Your task to perform on an android device: see tabs open on other devices in the chrome app Image 0: 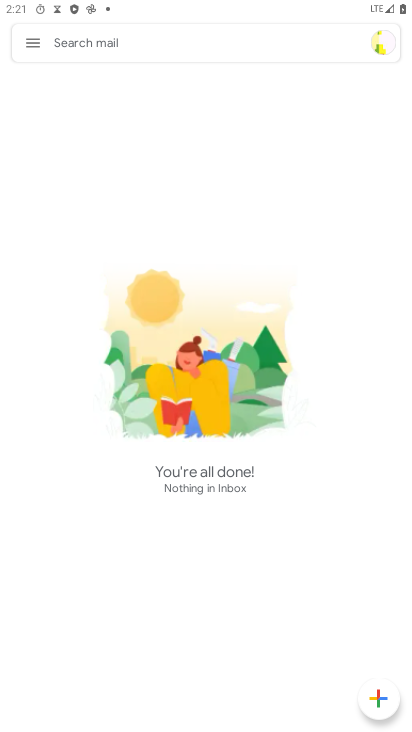
Step 0: press home button
Your task to perform on an android device: see tabs open on other devices in the chrome app Image 1: 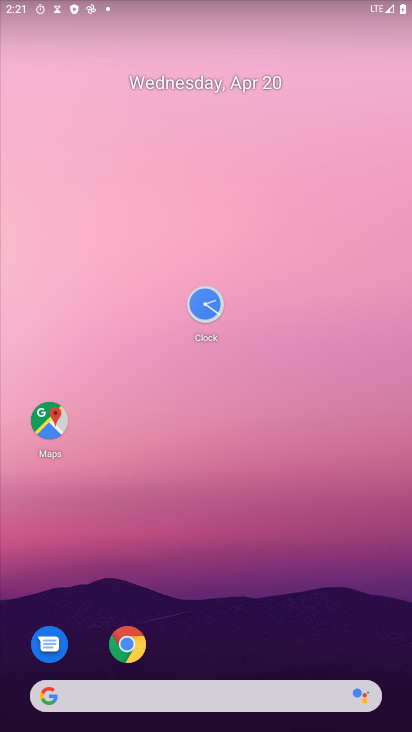
Step 1: drag from (260, 688) to (213, 65)
Your task to perform on an android device: see tabs open on other devices in the chrome app Image 2: 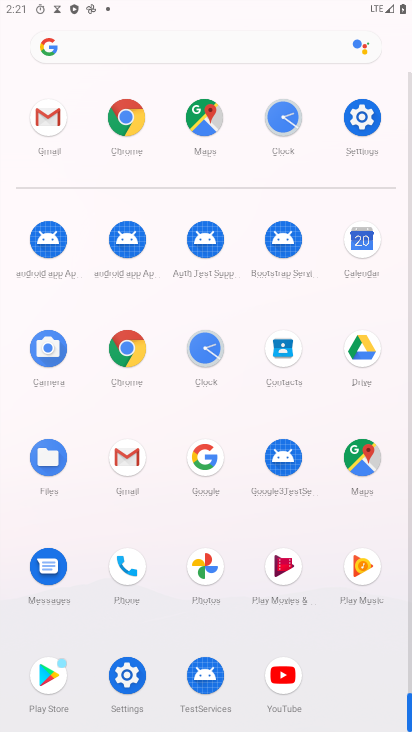
Step 2: click (132, 347)
Your task to perform on an android device: see tabs open on other devices in the chrome app Image 3: 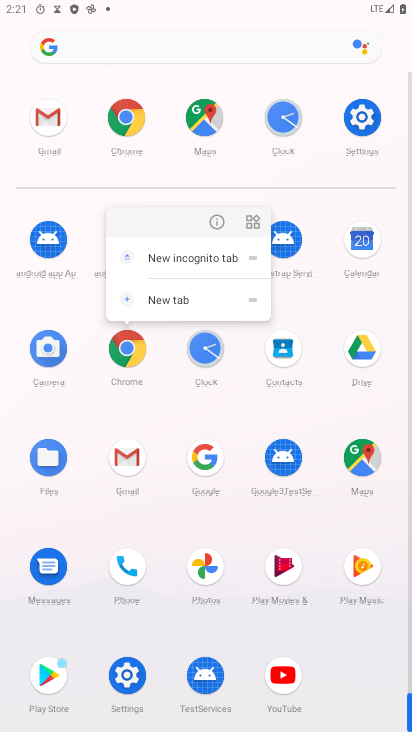
Step 3: click (132, 347)
Your task to perform on an android device: see tabs open on other devices in the chrome app Image 4: 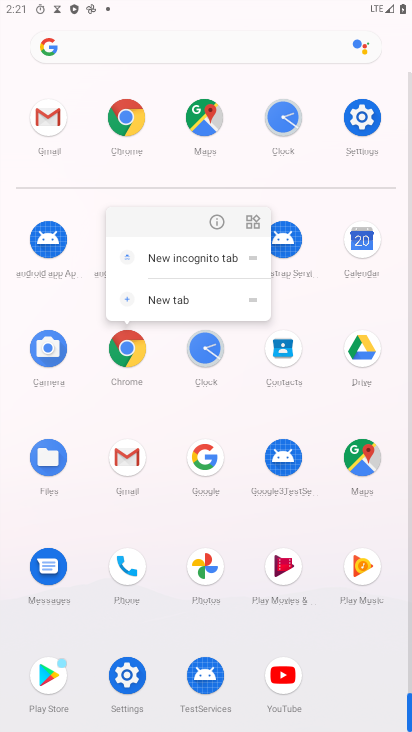
Step 4: click (133, 359)
Your task to perform on an android device: see tabs open on other devices in the chrome app Image 5: 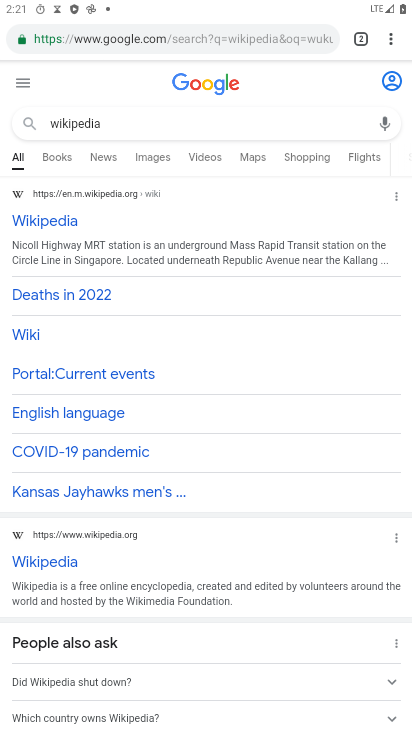
Step 5: click (388, 42)
Your task to perform on an android device: see tabs open on other devices in the chrome app Image 6: 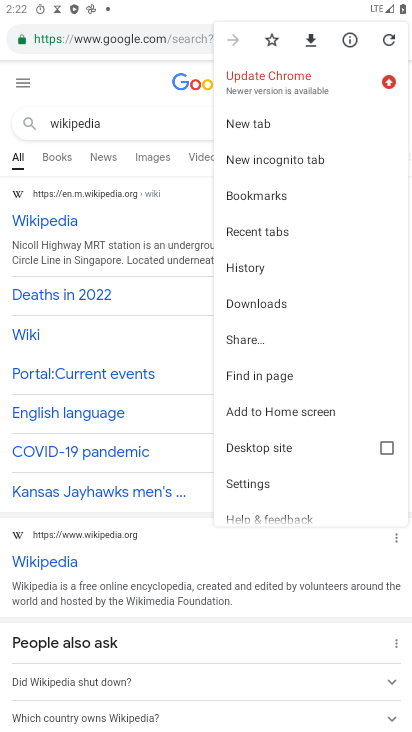
Step 6: click (263, 233)
Your task to perform on an android device: see tabs open on other devices in the chrome app Image 7: 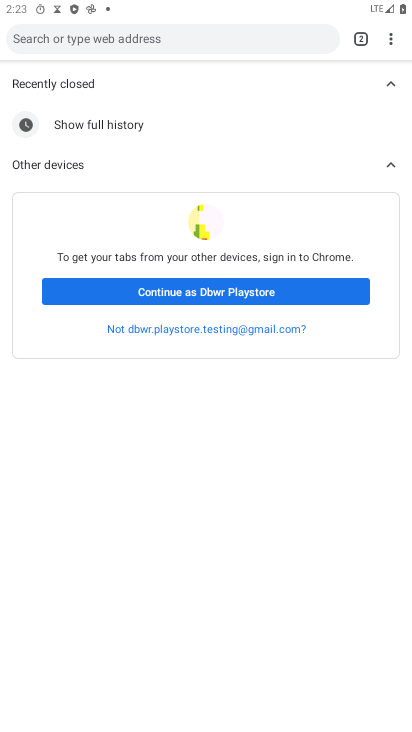
Step 7: task complete